Your task to perform on an android device: Open Youtube and go to "Your channel" Image 0: 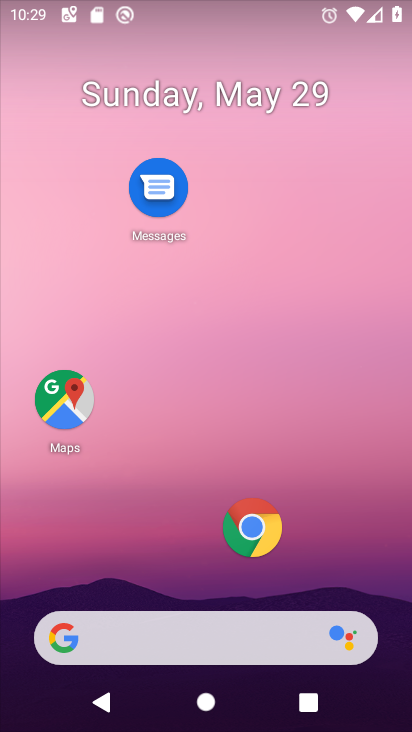
Step 0: press home button
Your task to perform on an android device: Open Youtube and go to "Your channel" Image 1: 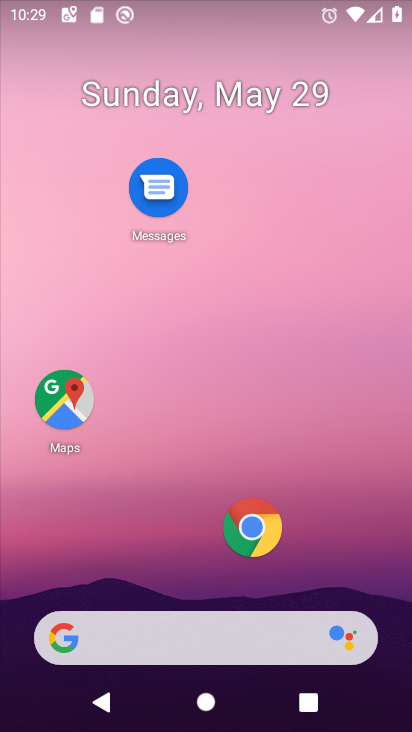
Step 1: drag from (308, 594) to (373, 56)
Your task to perform on an android device: Open Youtube and go to "Your channel" Image 2: 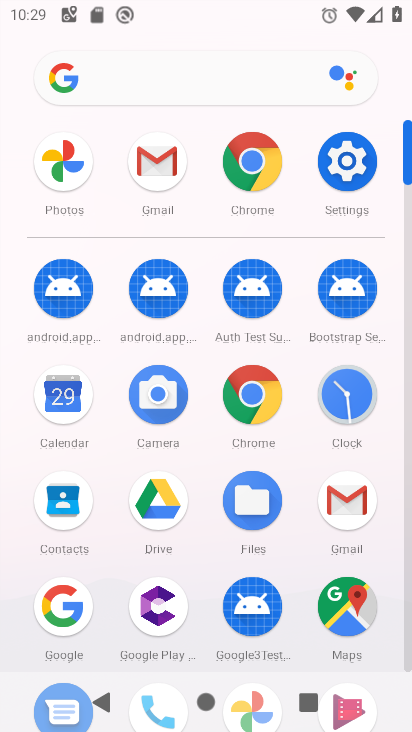
Step 2: drag from (308, 569) to (311, 75)
Your task to perform on an android device: Open Youtube and go to "Your channel" Image 3: 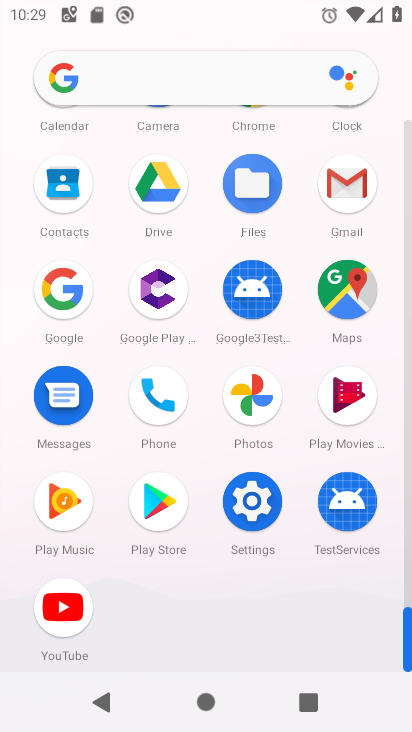
Step 3: click (58, 612)
Your task to perform on an android device: Open Youtube and go to "Your channel" Image 4: 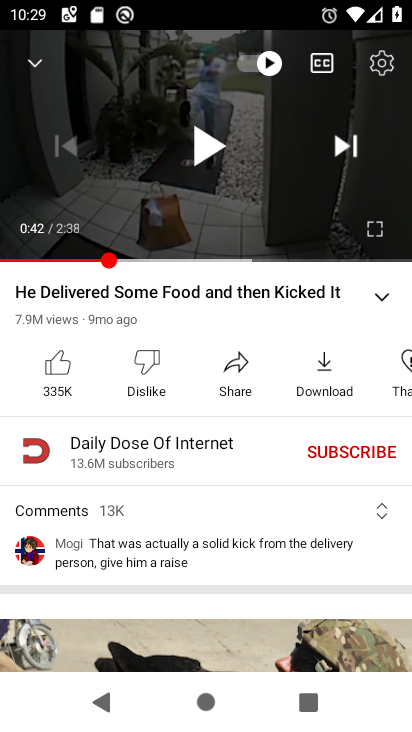
Step 4: press back button
Your task to perform on an android device: Open Youtube and go to "Your channel" Image 5: 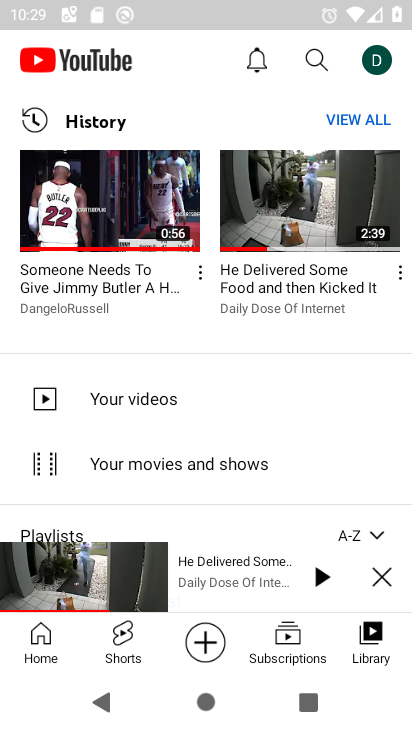
Step 5: click (373, 54)
Your task to perform on an android device: Open Youtube and go to "Your channel" Image 6: 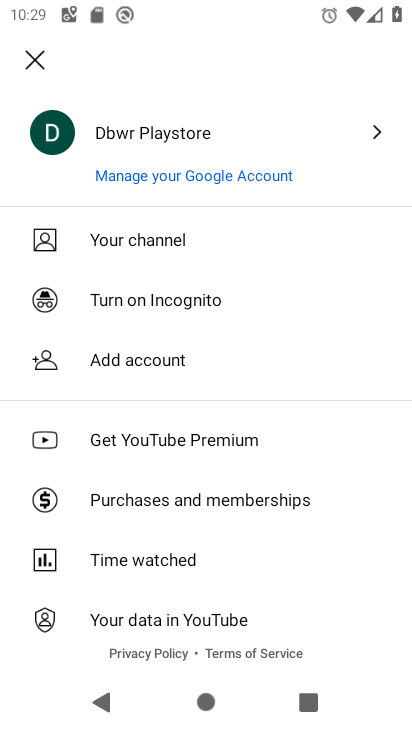
Step 6: click (205, 224)
Your task to perform on an android device: Open Youtube and go to "Your channel" Image 7: 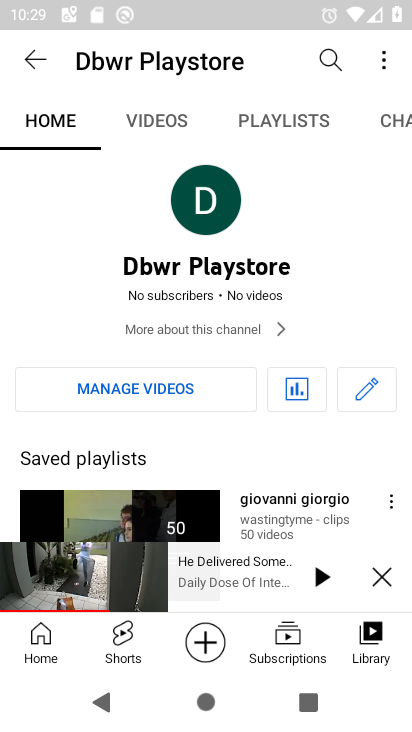
Step 7: click (377, 574)
Your task to perform on an android device: Open Youtube and go to "Your channel" Image 8: 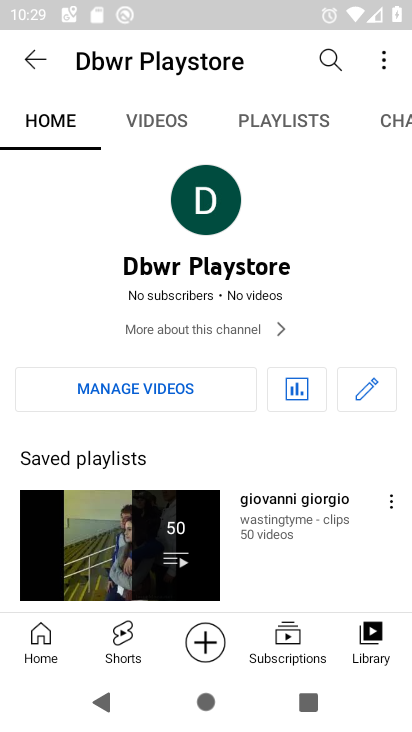
Step 8: task complete